Your task to perform on an android device: see tabs open on other devices in the chrome app Image 0: 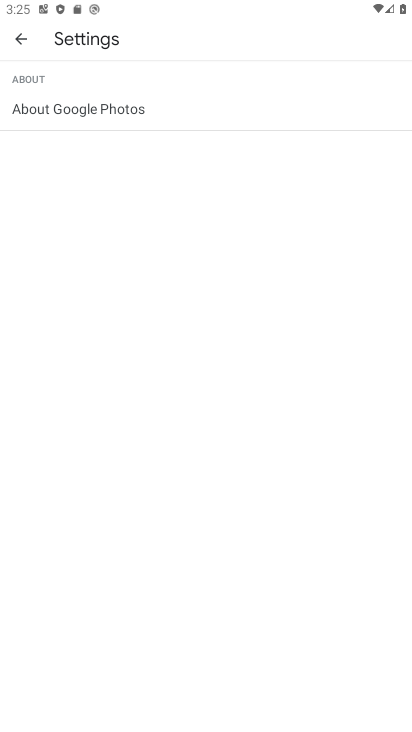
Step 0: press home button
Your task to perform on an android device: see tabs open on other devices in the chrome app Image 1: 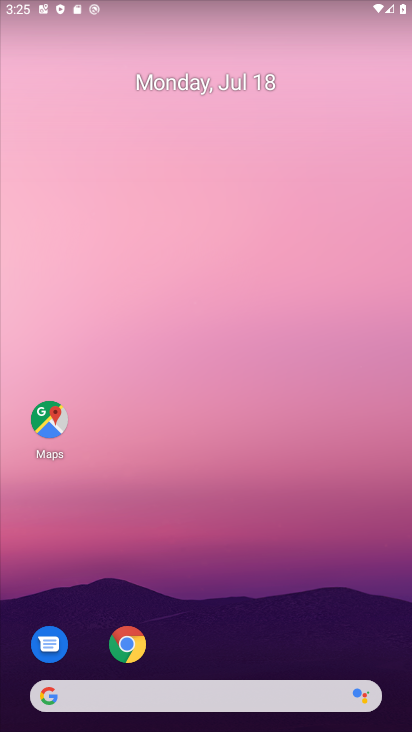
Step 1: click (127, 645)
Your task to perform on an android device: see tabs open on other devices in the chrome app Image 2: 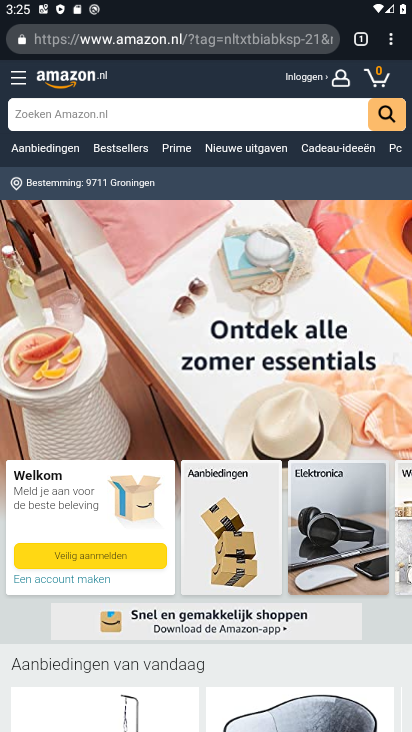
Step 2: click (390, 44)
Your task to perform on an android device: see tabs open on other devices in the chrome app Image 3: 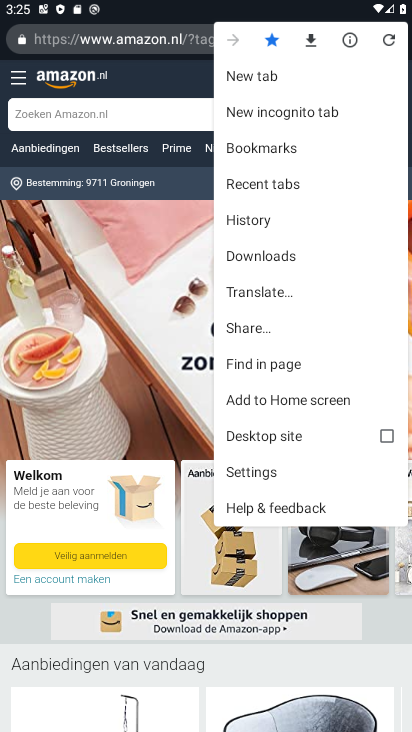
Step 3: click (251, 180)
Your task to perform on an android device: see tabs open on other devices in the chrome app Image 4: 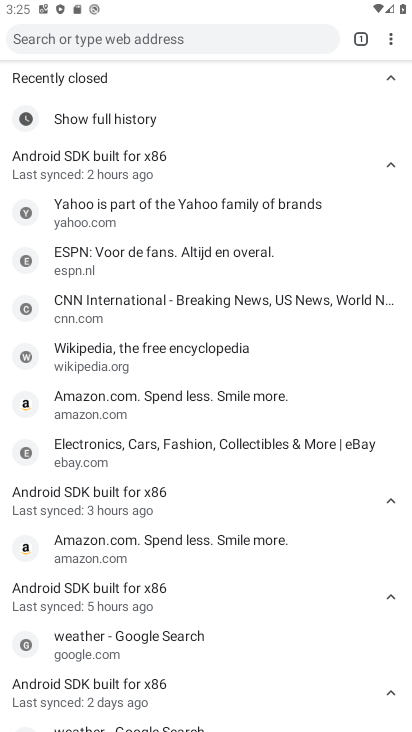
Step 4: task complete